Your task to perform on an android device: Go to Google Image 0: 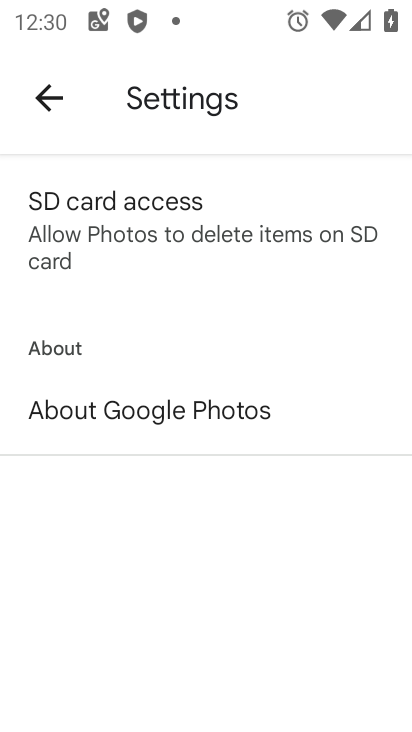
Step 0: press home button
Your task to perform on an android device: Go to Google Image 1: 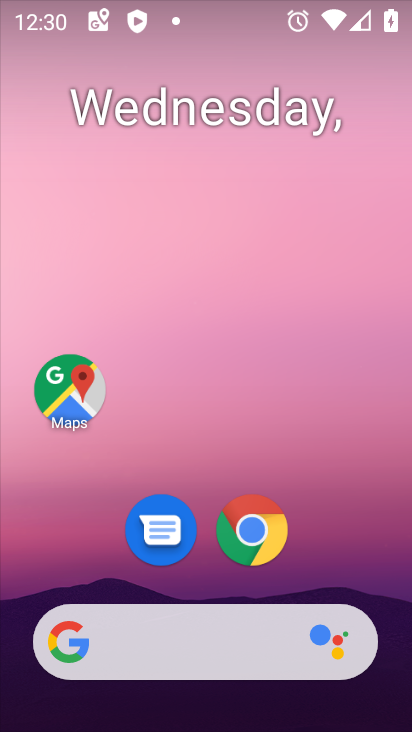
Step 1: drag from (191, 589) to (252, 218)
Your task to perform on an android device: Go to Google Image 2: 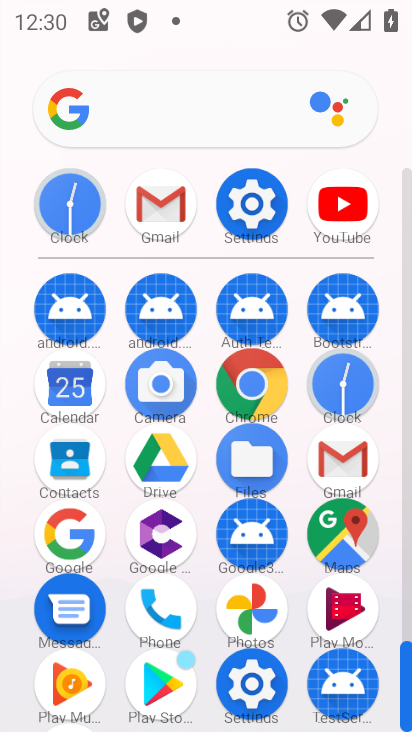
Step 2: click (66, 533)
Your task to perform on an android device: Go to Google Image 3: 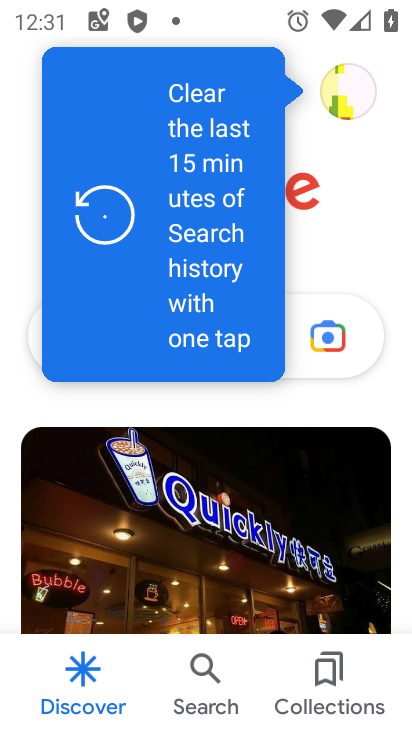
Step 3: task complete